Your task to perform on an android device: What's the weather going to be this weekend? Image 0: 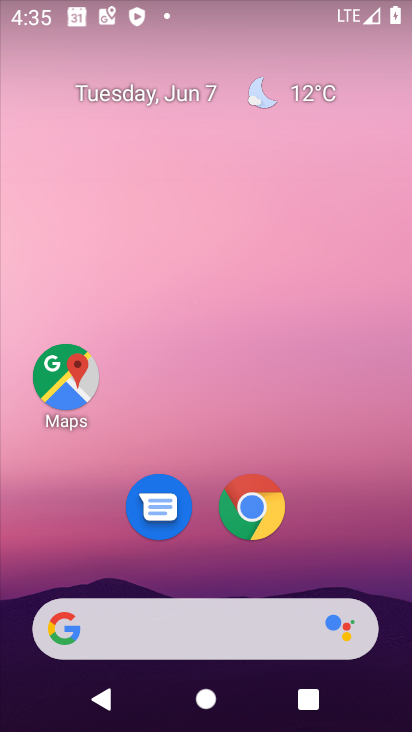
Step 0: drag from (344, 554) to (300, 49)
Your task to perform on an android device: What's the weather going to be this weekend? Image 1: 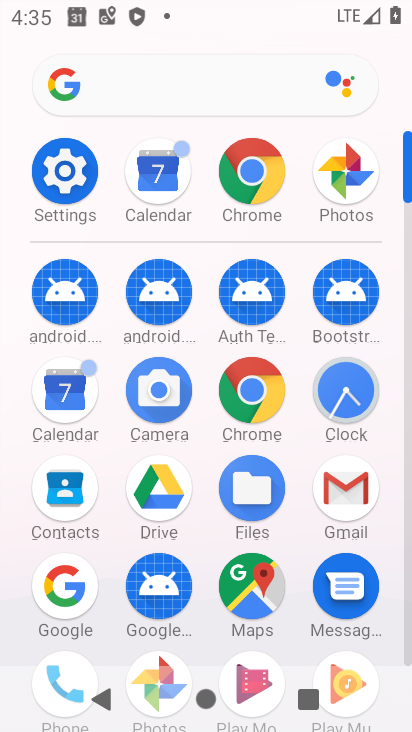
Step 1: drag from (15, 561) to (25, 250)
Your task to perform on an android device: What's the weather going to be this weekend? Image 2: 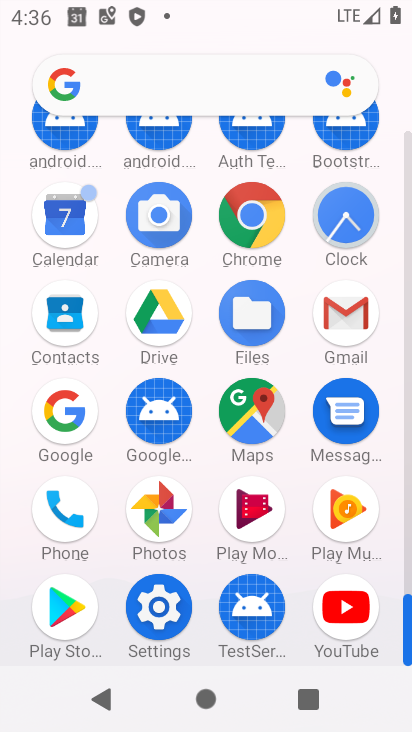
Step 2: click (247, 209)
Your task to perform on an android device: What's the weather going to be this weekend? Image 3: 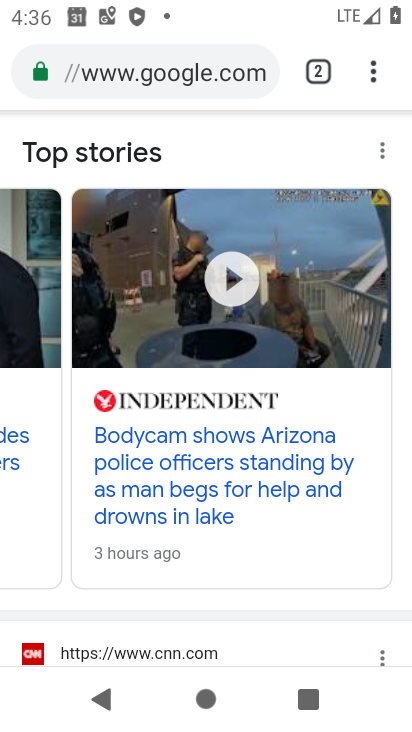
Step 3: click (162, 49)
Your task to perform on an android device: What's the weather going to be this weekend? Image 4: 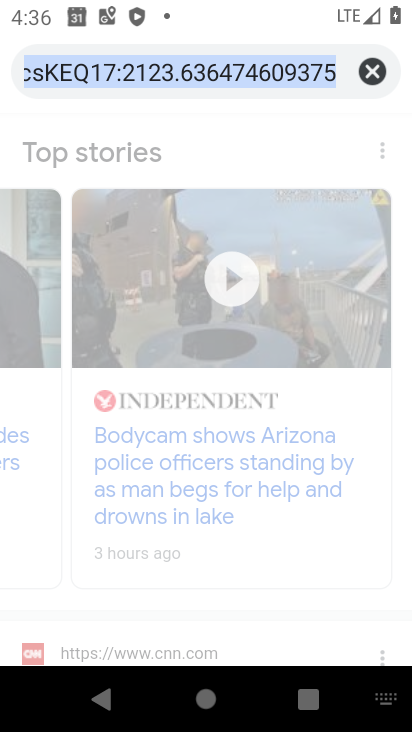
Step 4: click (373, 62)
Your task to perform on an android device: What's the weather going to be this weekend? Image 5: 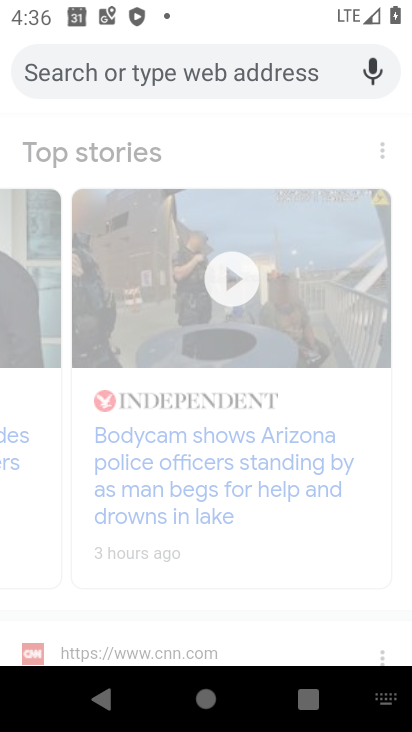
Step 5: type "What's the weather going to be this weekend?"
Your task to perform on an android device: What's the weather going to be this weekend? Image 6: 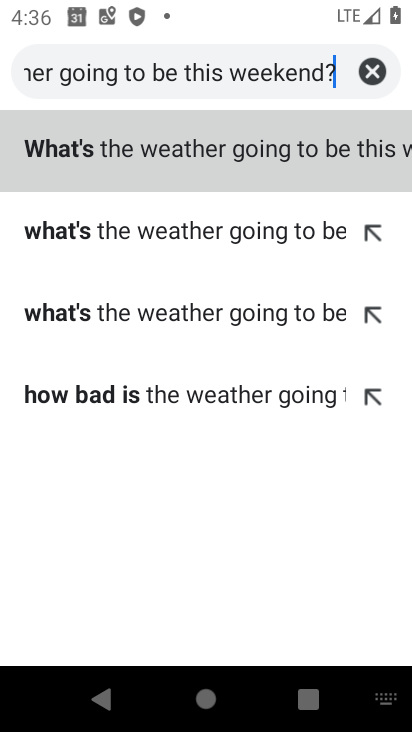
Step 6: click (189, 144)
Your task to perform on an android device: What's the weather going to be this weekend? Image 7: 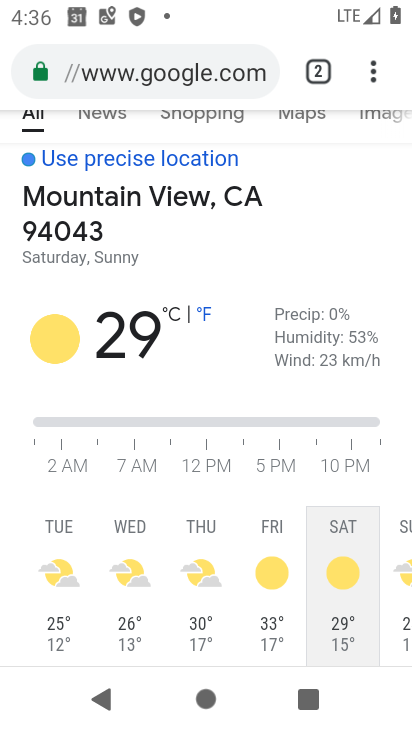
Step 7: task complete